Your task to perform on an android device: check storage Image 0: 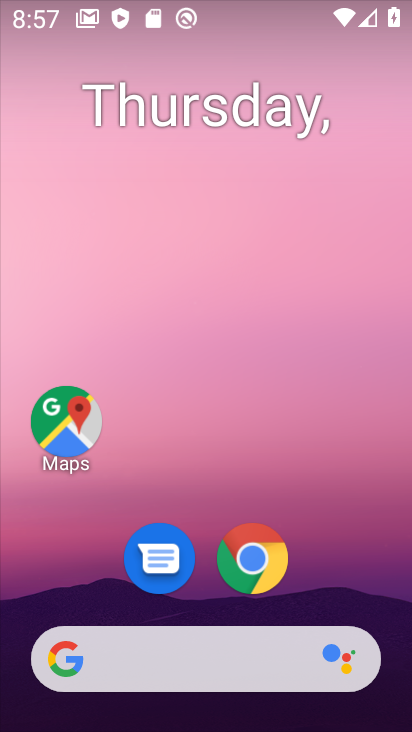
Step 0: drag from (389, 627) to (356, 170)
Your task to perform on an android device: check storage Image 1: 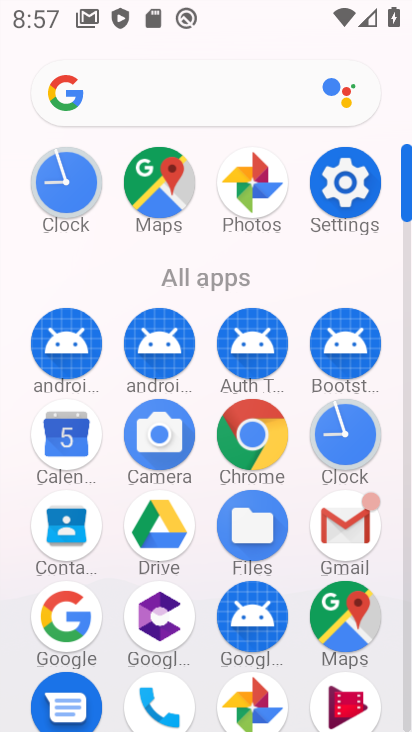
Step 1: click (342, 432)
Your task to perform on an android device: check storage Image 2: 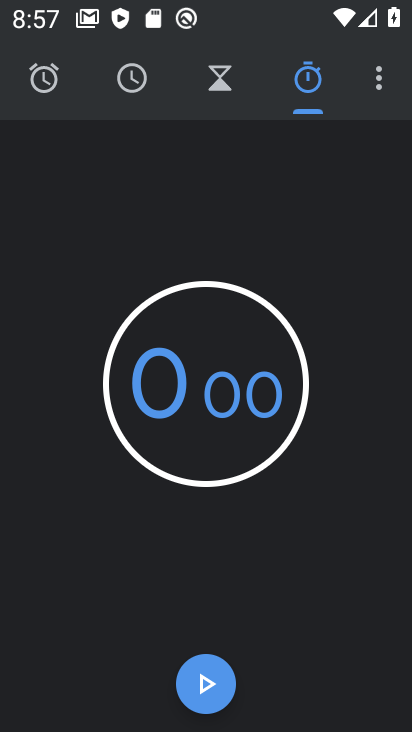
Step 2: press home button
Your task to perform on an android device: check storage Image 3: 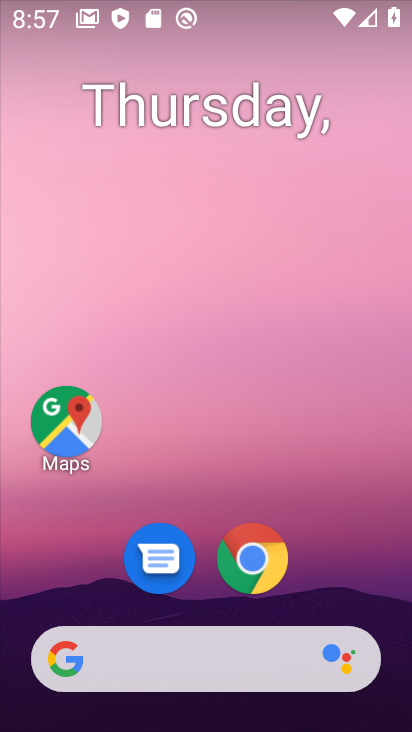
Step 3: drag from (364, 603) to (314, 141)
Your task to perform on an android device: check storage Image 4: 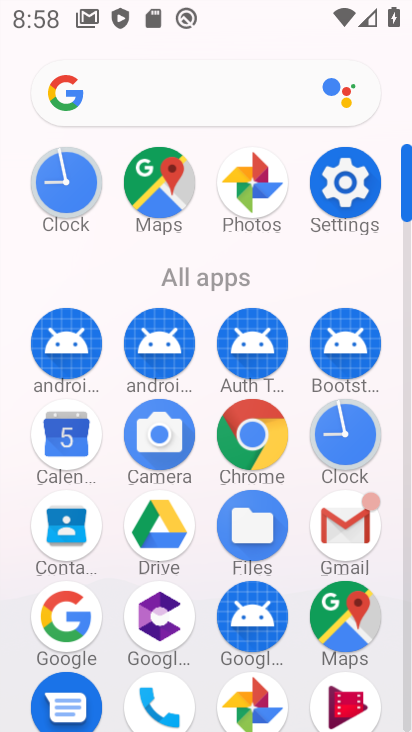
Step 4: click (404, 688)
Your task to perform on an android device: check storage Image 5: 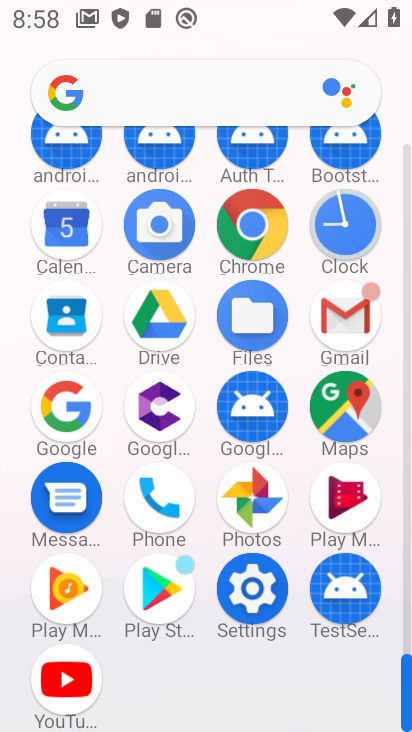
Step 5: click (253, 586)
Your task to perform on an android device: check storage Image 6: 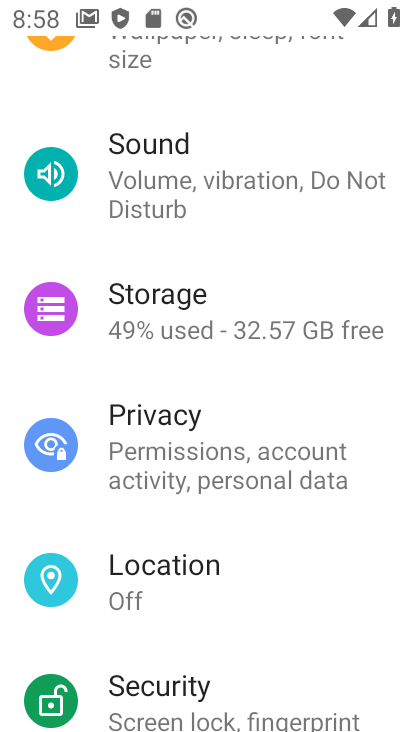
Step 6: click (145, 304)
Your task to perform on an android device: check storage Image 7: 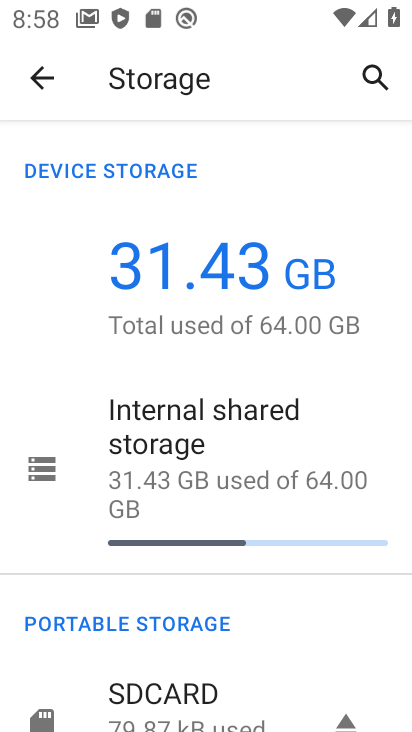
Step 7: task complete